Your task to perform on an android device: Open the Play Movies app and select the watchlist tab. Image 0: 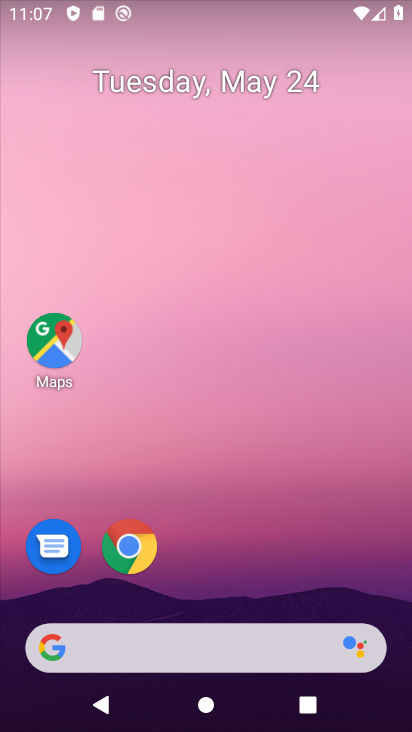
Step 0: drag from (213, 611) to (192, 150)
Your task to perform on an android device: Open the Play Movies app and select the watchlist tab. Image 1: 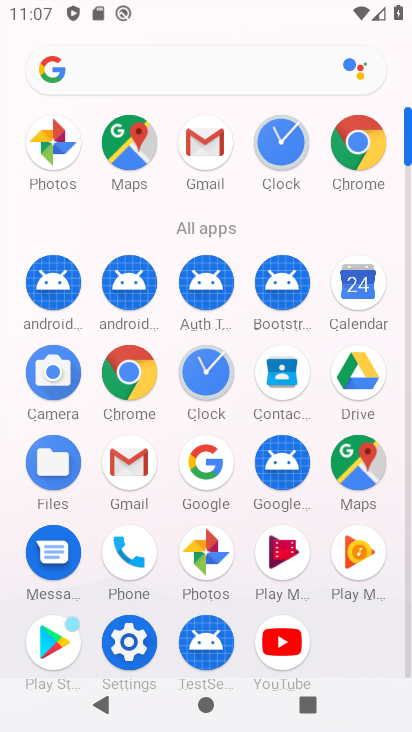
Step 1: click (276, 570)
Your task to perform on an android device: Open the Play Movies app and select the watchlist tab. Image 2: 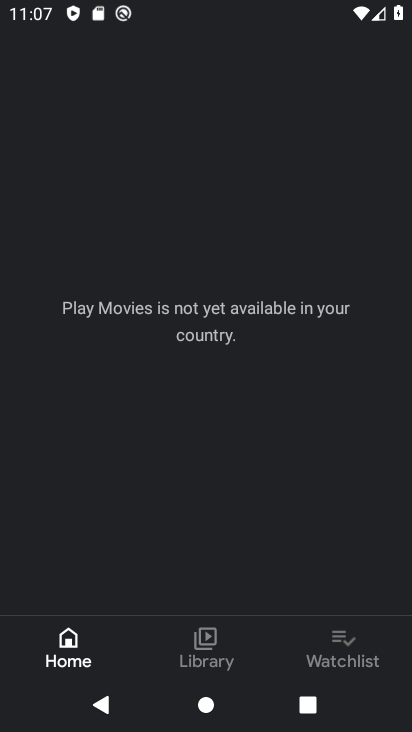
Step 2: click (331, 643)
Your task to perform on an android device: Open the Play Movies app and select the watchlist tab. Image 3: 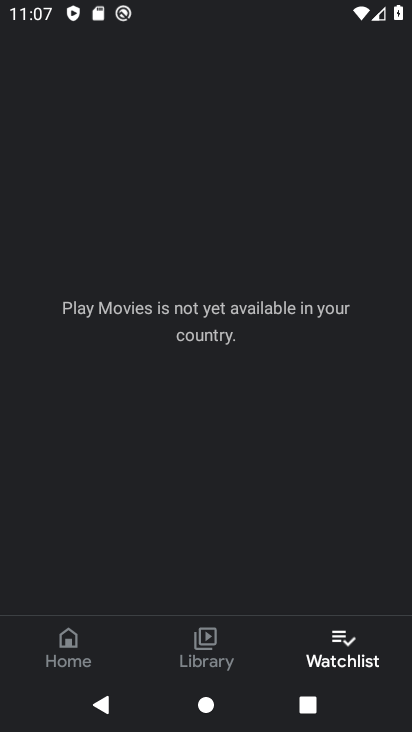
Step 3: task complete